Your task to perform on an android device: See recent photos Image 0: 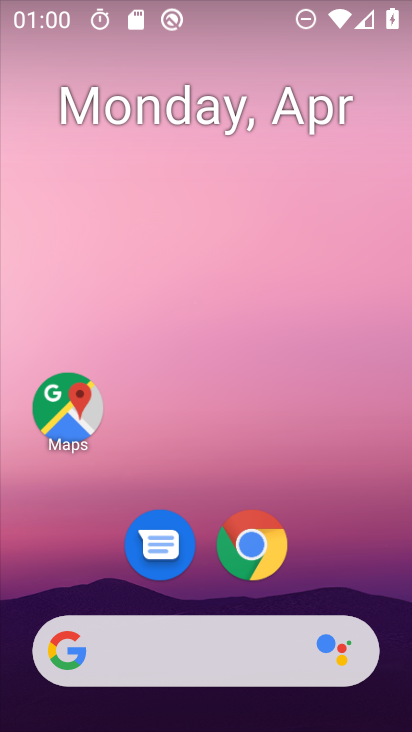
Step 0: drag from (320, 341) to (320, 281)
Your task to perform on an android device: See recent photos Image 1: 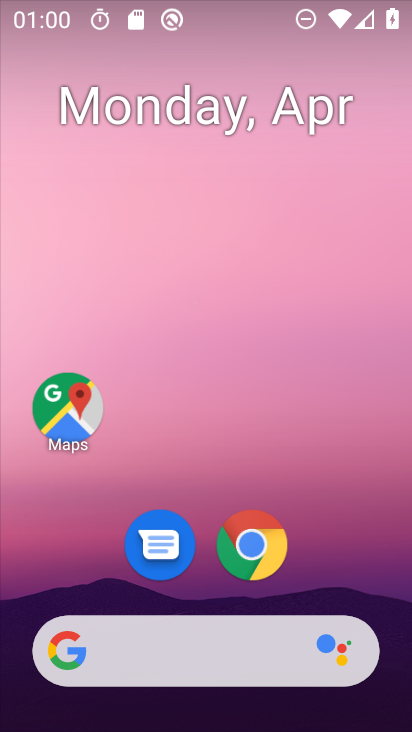
Step 1: drag from (354, 597) to (314, 299)
Your task to perform on an android device: See recent photos Image 2: 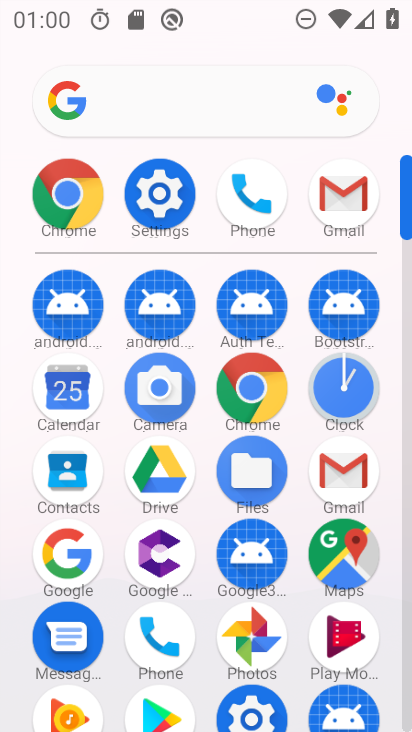
Step 2: click (240, 635)
Your task to perform on an android device: See recent photos Image 3: 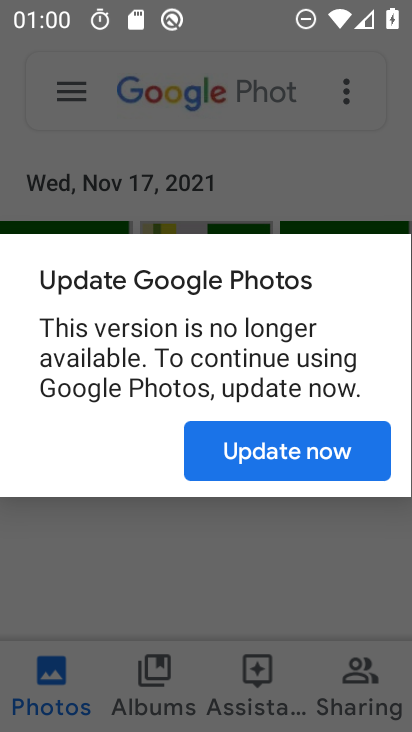
Step 3: click (272, 453)
Your task to perform on an android device: See recent photos Image 4: 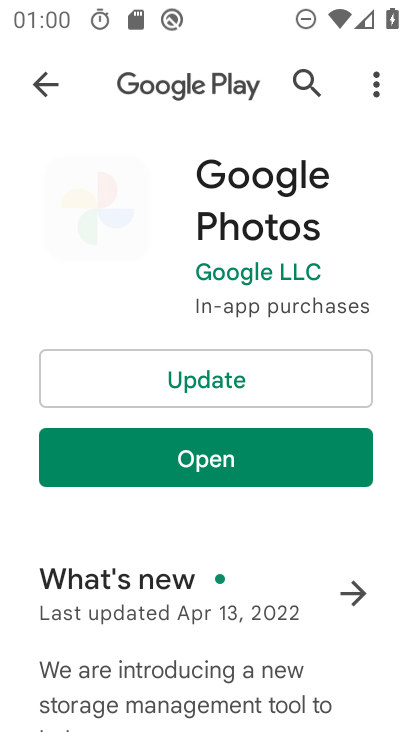
Step 4: press back button
Your task to perform on an android device: See recent photos Image 5: 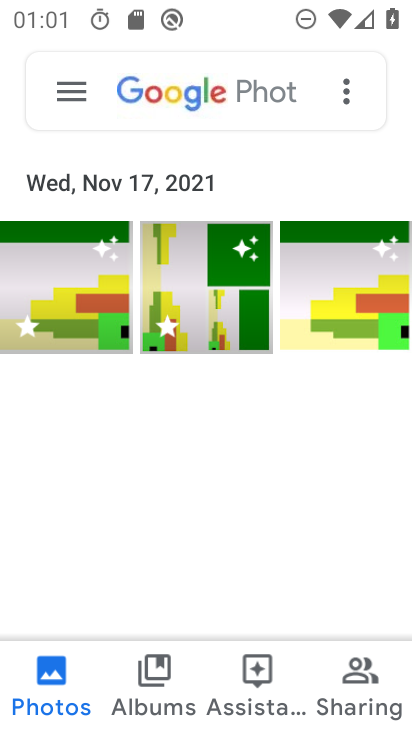
Step 5: click (36, 290)
Your task to perform on an android device: See recent photos Image 6: 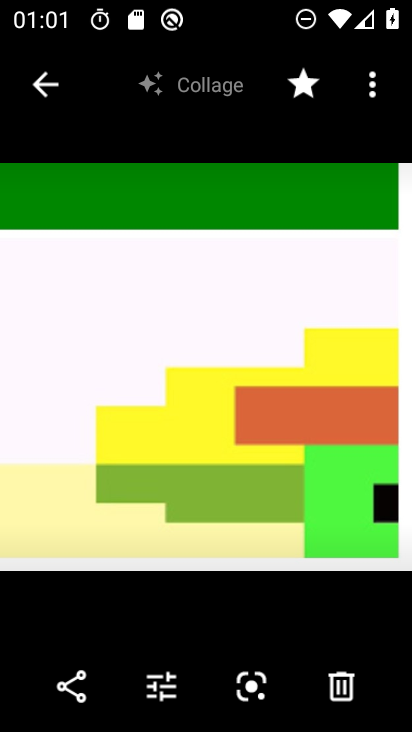
Step 6: task complete